Your task to perform on an android device: Go to Wikipedia Image 0: 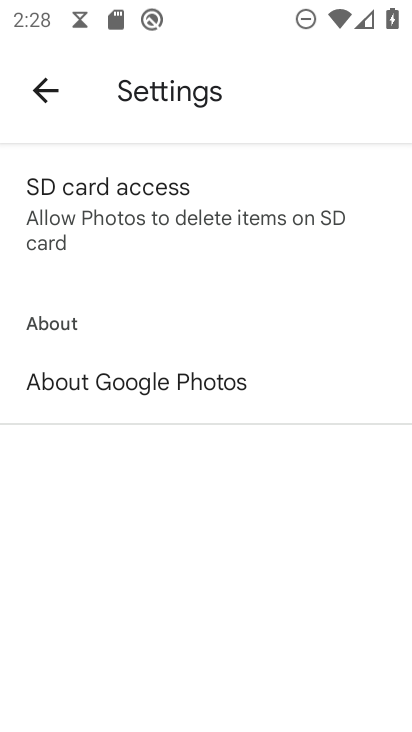
Step 0: press home button
Your task to perform on an android device: Go to Wikipedia Image 1: 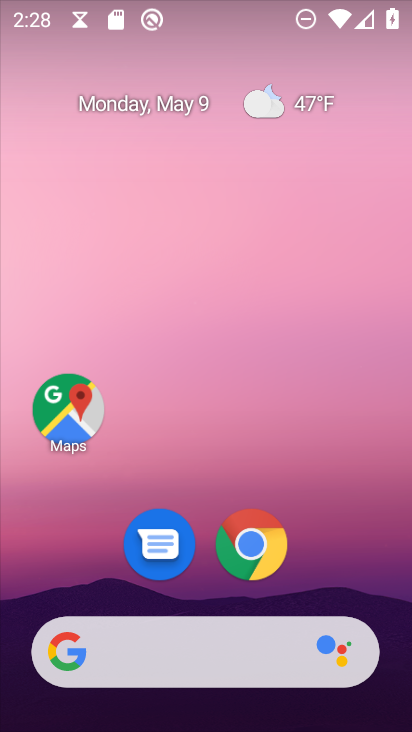
Step 1: drag from (349, 497) to (315, 174)
Your task to perform on an android device: Go to Wikipedia Image 2: 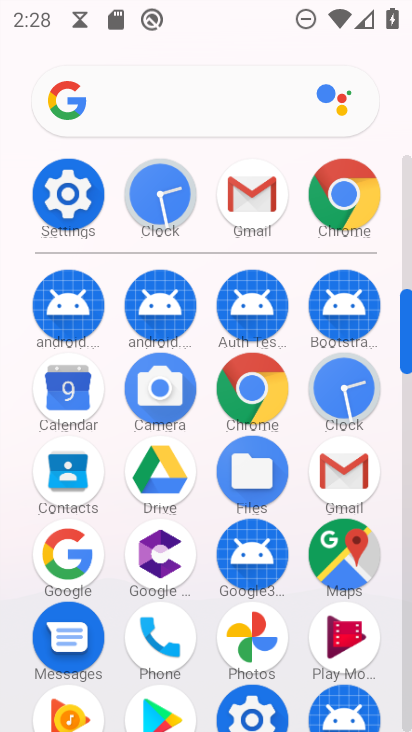
Step 2: click (61, 179)
Your task to perform on an android device: Go to Wikipedia Image 3: 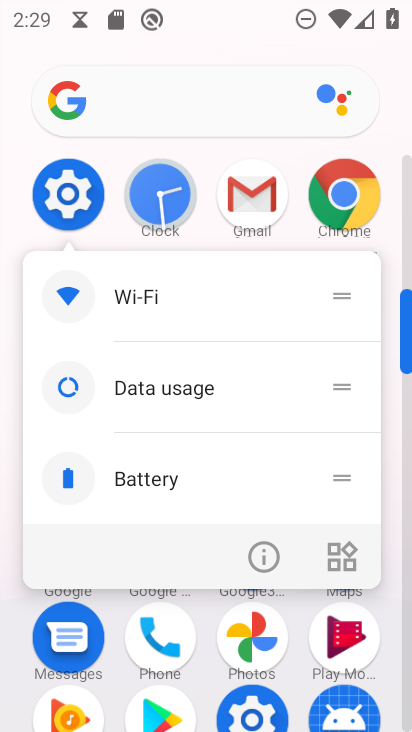
Step 3: click (67, 202)
Your task to perform on an android device: Go to Wikipedia Image 4: 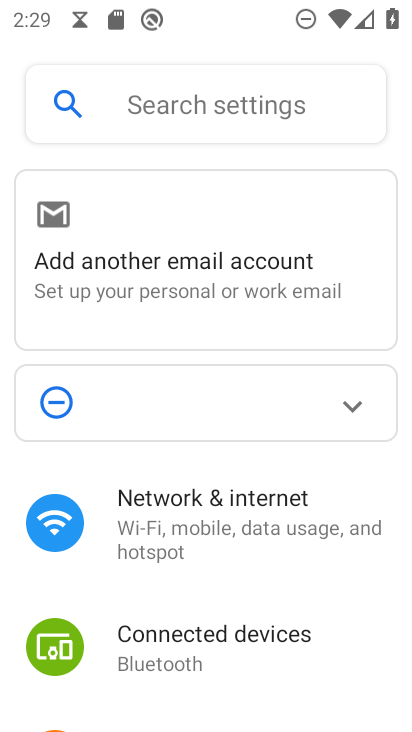
Step 4: press home button
Your task to perform on an android device: Go to Wikipedia Image 5: 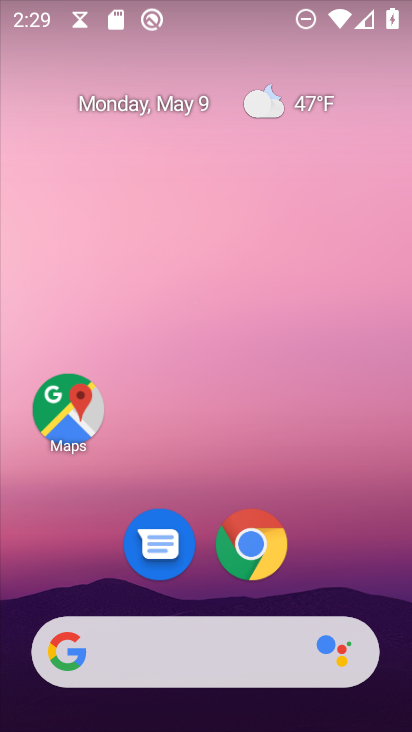
Step 5: drag from (346, 532) to (403, 70)
Your task to perform on an android device: Go to Wikipedia Image 6: 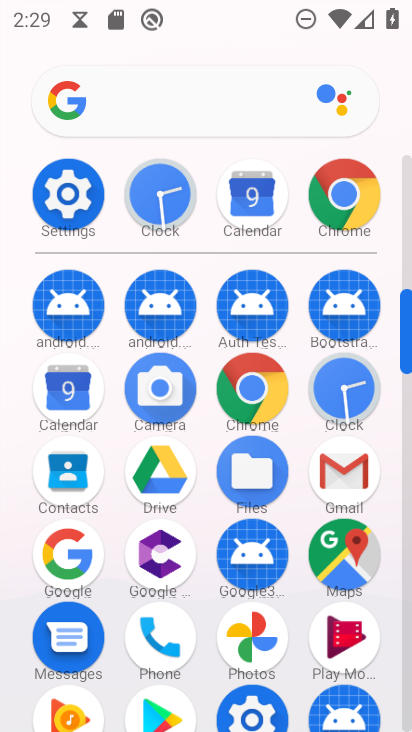
Step 6: click (334, 205)
Your task to perform on an android device: Go to Wikipedia Image 7: 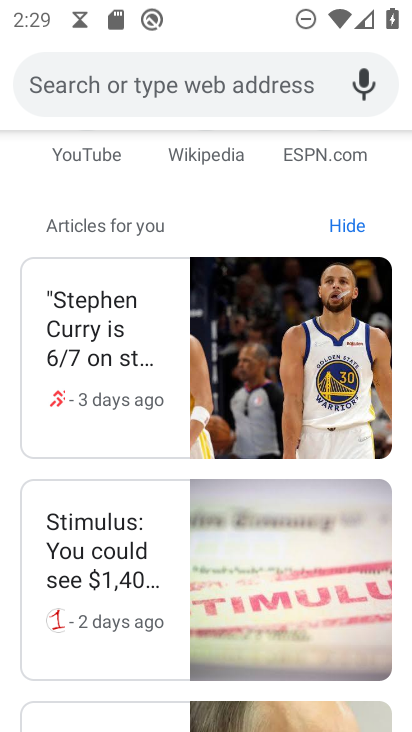
Step 7: click (201, 80)
Your task to perform on an android device: Go to Wikipedia Image 8: 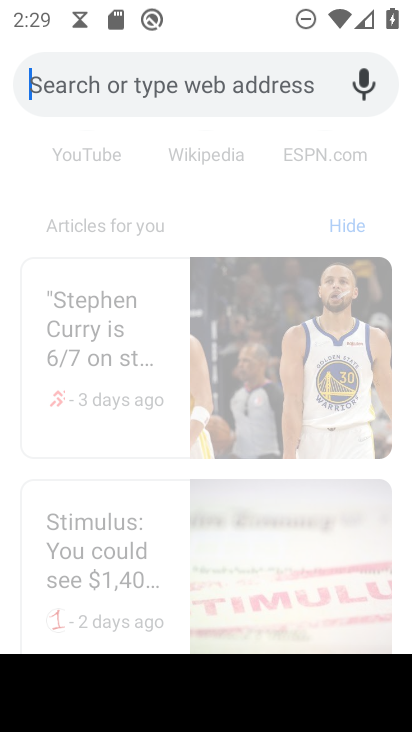
Step 8: press back button
Your task to perform on an android device: Go to Wikipedia Image 9: 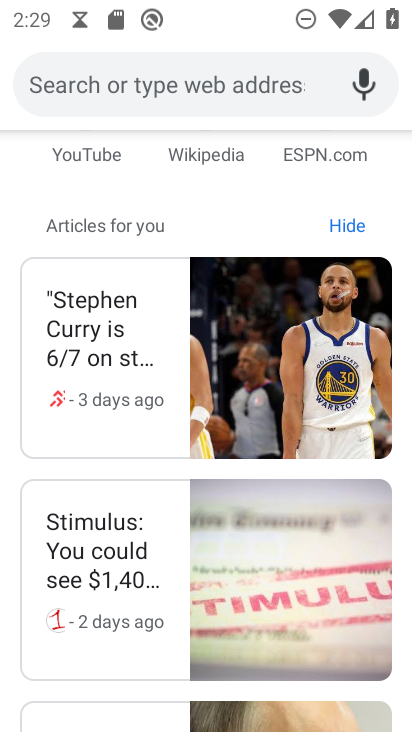
Step 9: click (228, 151)
Your task to perform on an android device: Go to Wikipedia Image 10: 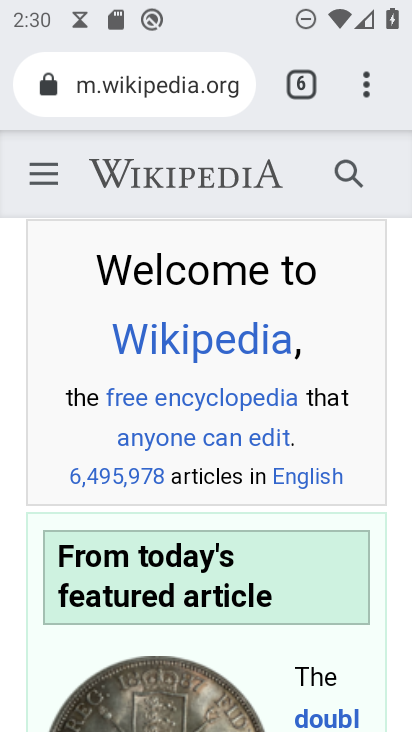
Step 10: task complete